Your task to perform on an android device: Go to internet settings Image 0: 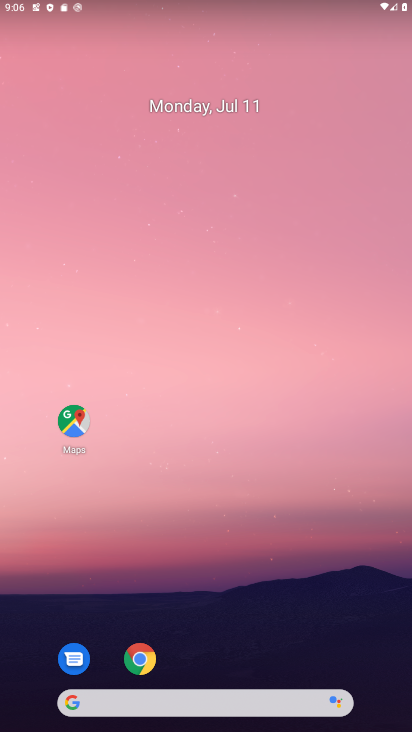
Step 0: drag from (215, 679) to (202, 134)
Your task to perform on an android device: Go to internet settings Image 1: 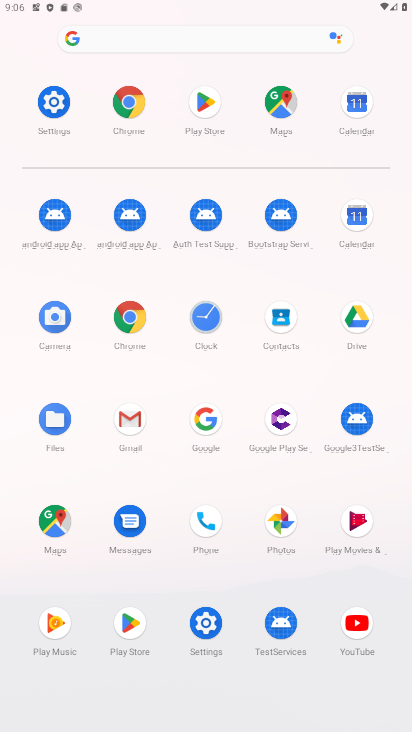
Step 1: click (53, 97)
Your task to perform on an android device: Go to internet settings Image 2: 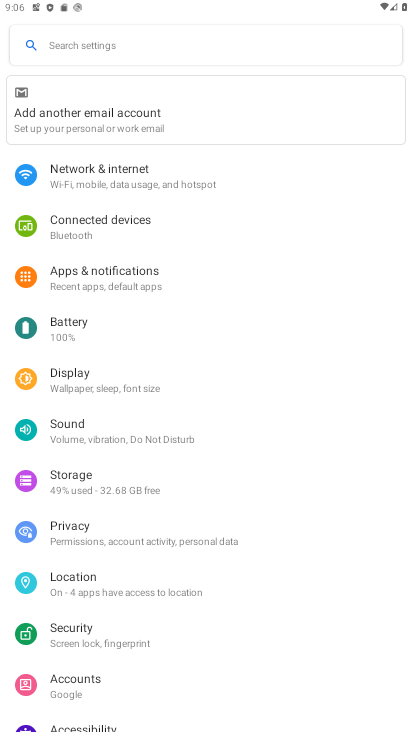
Step 2: click (137, 166)
Your task to perform on an android device: Go to internet settings Image 3: 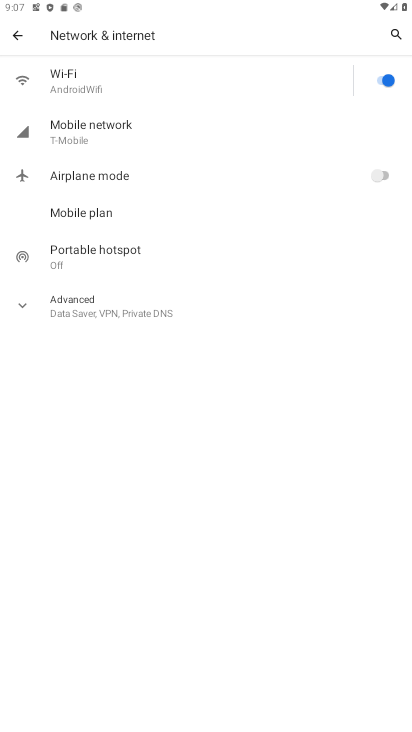
Step 3: task complete